Your task to perform on an android device: Clear the shopping cart on walmart.com. Search for usb-b on walmart.com, select the first entry, and add it to the cart. Image 0: 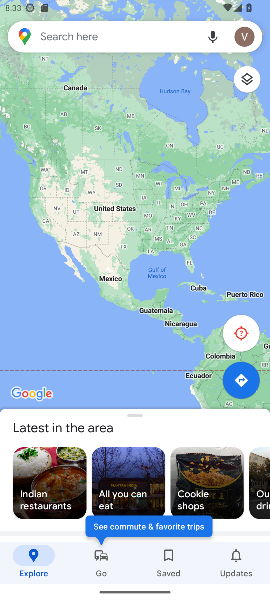
Step 0: press home button
Your task to perform on an android device: Clear the shopping cart on walmart.com. Search for usb-b on walmart.com, select the first entry, and add it to the cart. Image 1: 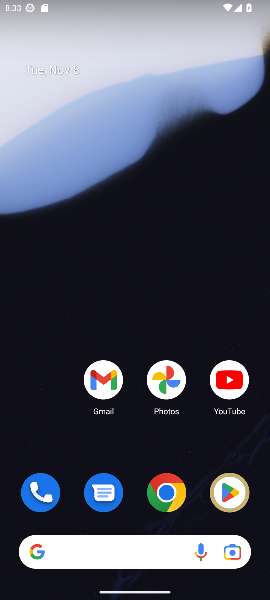
Step 1: click (157, 473)
Your task to perform on an android device: Clear the shopping cart on walmart.com. Search for usb-b on walmart.com, select the first entry, and add it to the cart. Image 2: 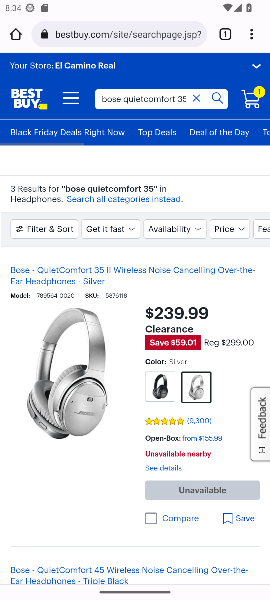
Step 2: click (191, 29)
Your task to perform on an android device: Clear the shopping cart on walmart.com. Search for usb-b on walmart.com, select the first entry, and add it to the cart. Image 3: 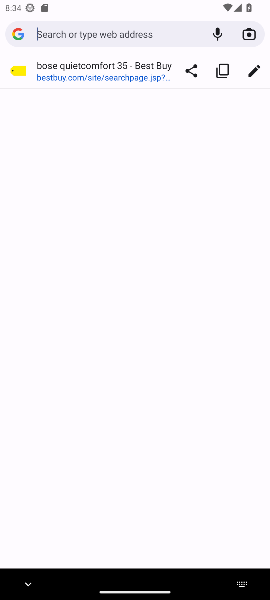
Step 3: click (195, 28)
Your task to perform on an android device: Clear the shopping cart on walmart.com. Search for usb-b on walmart.com, select the first entry, and add it to the cart. Image 4: 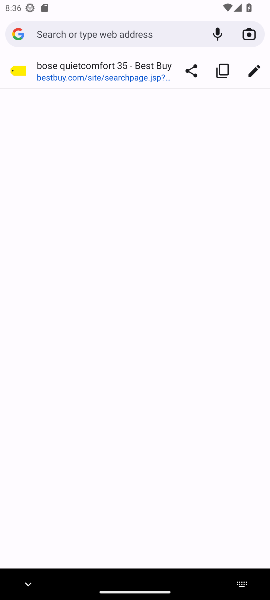
Step 4: task complete